Your task to perform on an android device: check out phone information Image 0: 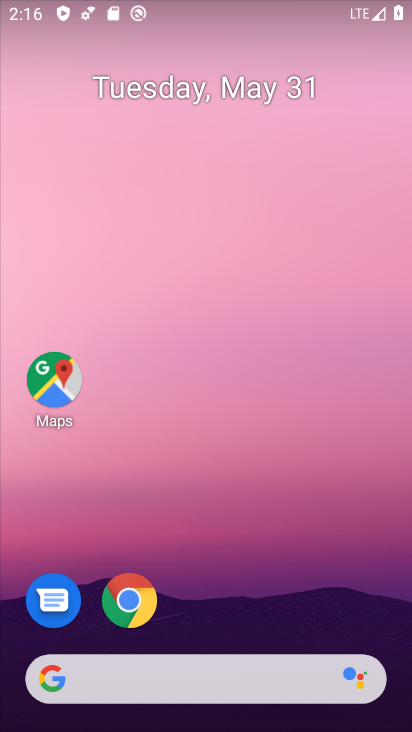
Step 0: press home button
Your task to perform on an android device: check out phone information Image 1: 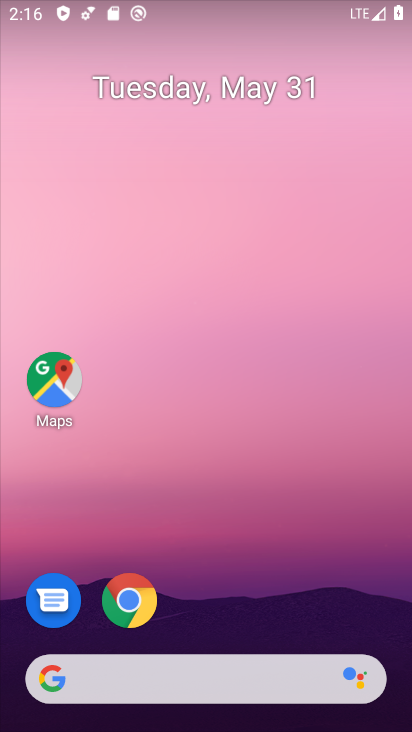
Step 1: press home button
Your task to perform on an android device: check out phone information Image 2: 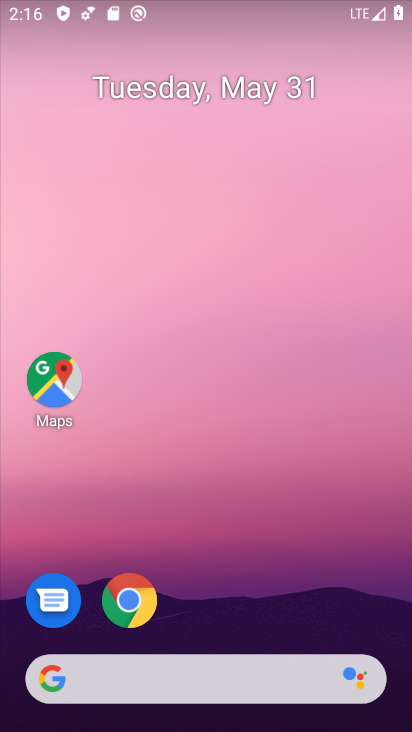
Step 2: drag from (221, 627) to (235, 70)
Your task to perform on an android device: check out phone information Image 3: 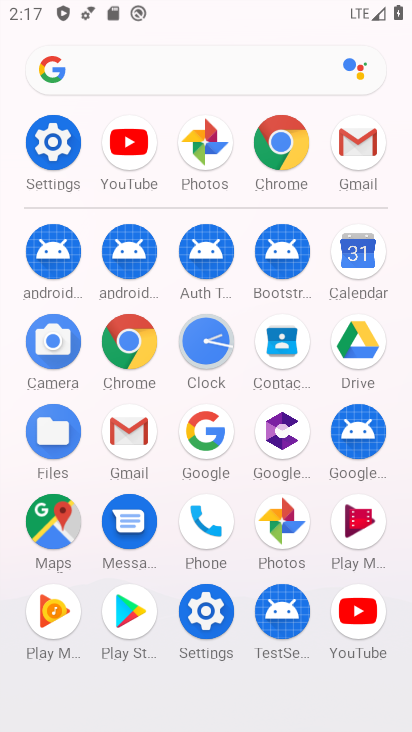
Step 3: click (53, 136)
Your task to perform on an android device: check out phone information Image 4: 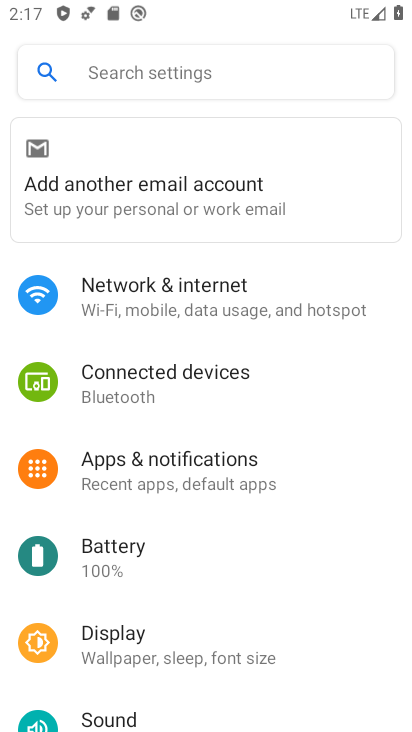
Step 4: drag from (194, 279) to (211, 64)
Your task to perform on an android device: check out phone information Image 5: 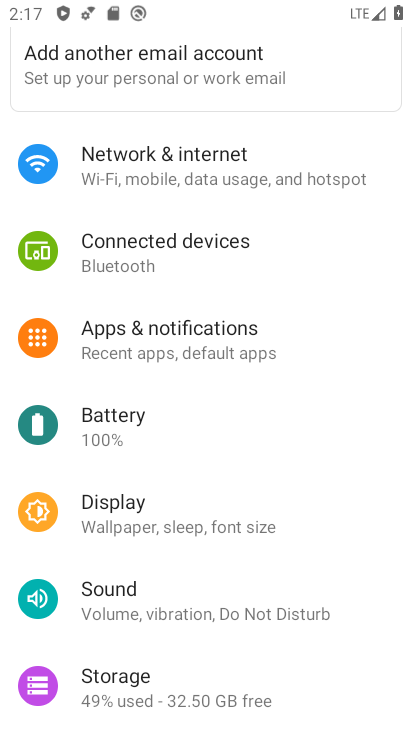
Step 5: drag from (172, 375) to (188, 233)
Your task to perform on an android device: check out phone information Image 6: 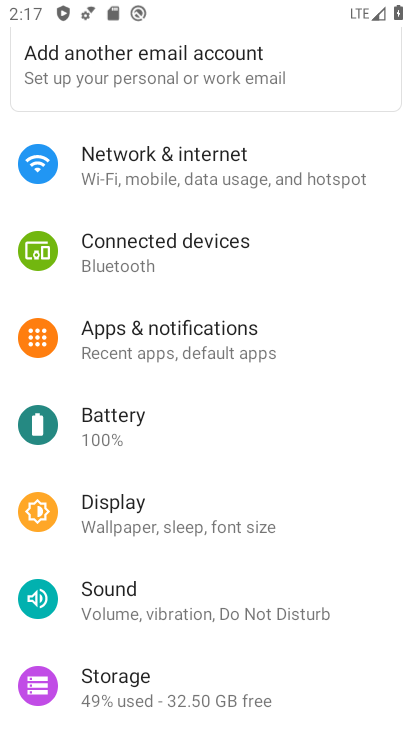
Step 6: drag from (181, 705) to (217, 15)
Your task to perform on an android device: check out phone information Image 7: 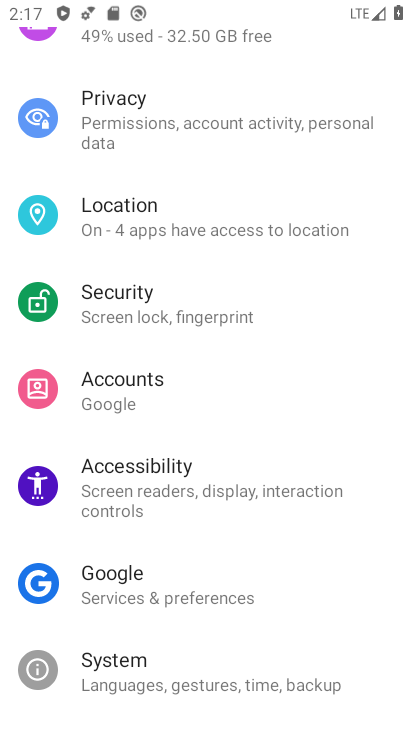
Step 7: drag from (182, 408) to (192, 167)
Your task to perform on an android device: check out phone information Image 8: 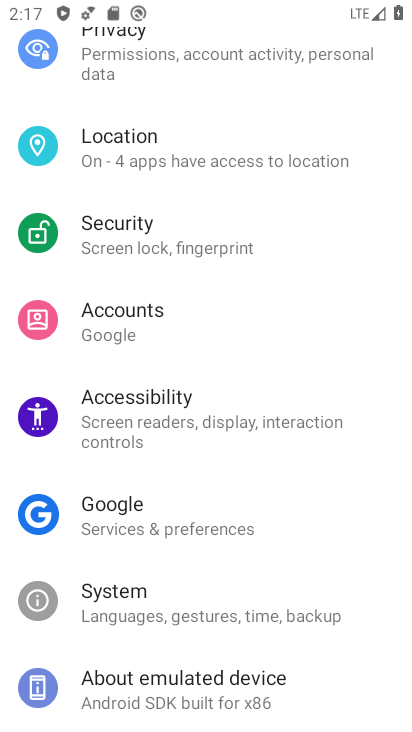
Step 8: click (182, 687)
Your task to perform on an android device: check out phone information Image 9: 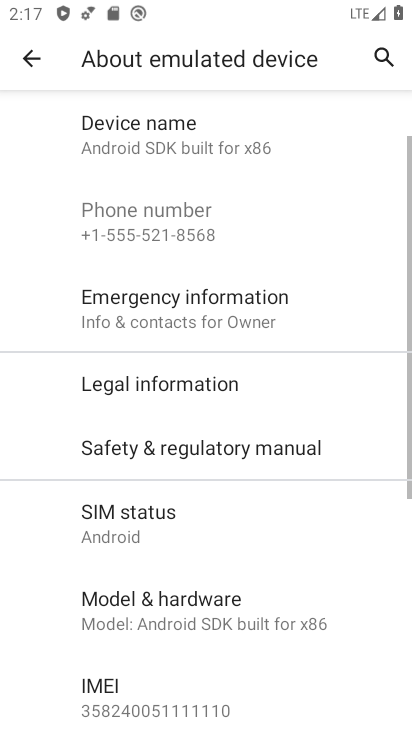
Step 9: task complete